Your task to perform on an android device: Show me popular videos on Youtube Image 0: 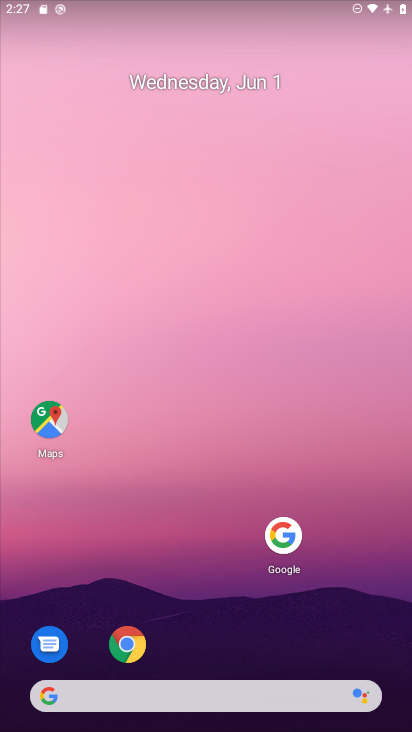
Step 0: press home button
Your task to perform on an android device: Show me popular videos on Youtube Image 1: 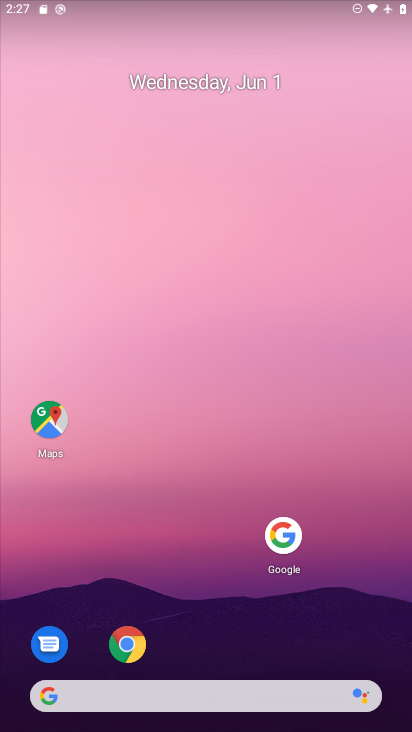
Step 1: drag from (141, 690) to (314, 130)
Your task to perform on an android device: Show me popular videos on Youtube Image 2: 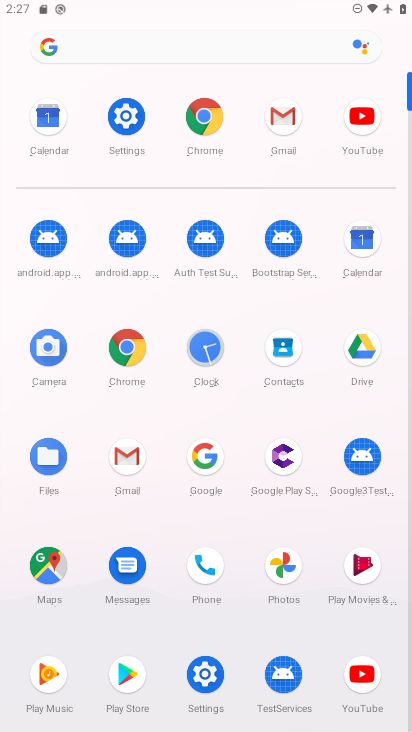
Step 2: click (362, 678)
Your task to perform on an android device: Show me popular videos on Youtube Image 3: 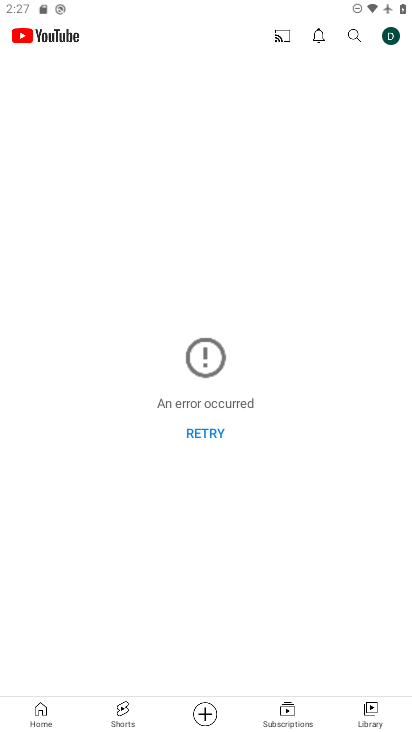
Step 3: click (205, 432)
Your task to perform on an android device: Show me popular videos on Youtube Image 4: 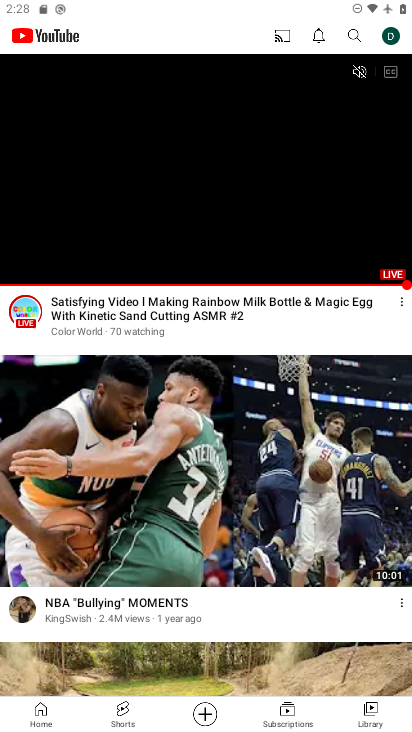
Step 4: task complete